Your task to perform on an android device: When is my next meeting? Image 0: 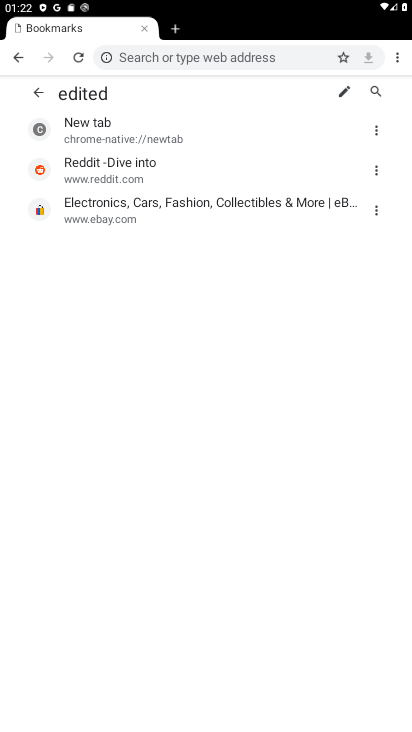
Step 0: press home button
Your task to perform on an android device: When is my next meeting? Image 1: 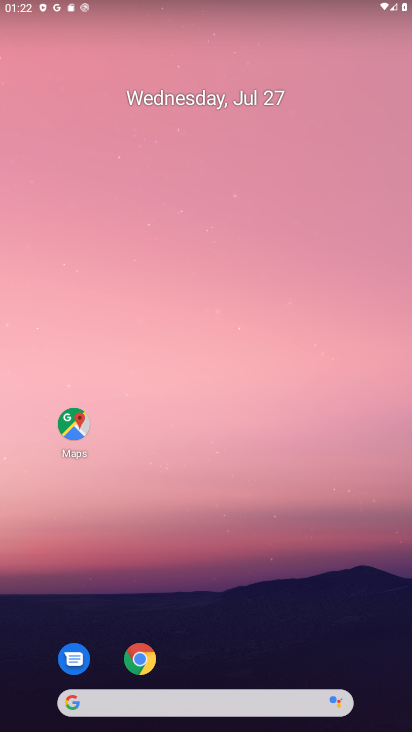
Step 1: drag from (276, 601) to (167, 62)
Your task to perform on an android device: When is my next meeting? Image 2: 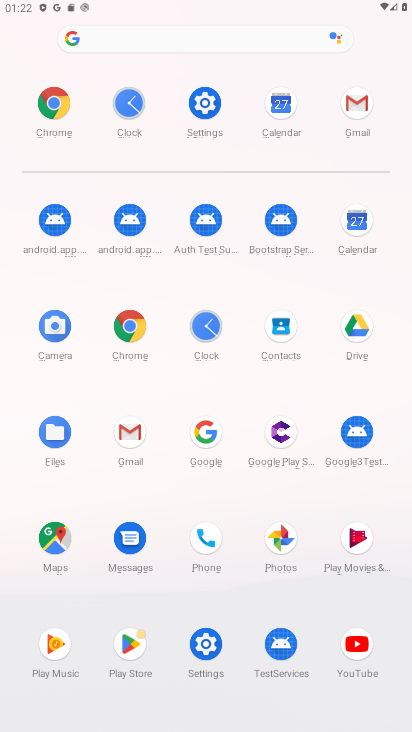
Step 2: click (362, 226)
Your task to perform on an android device: When is my next meeting? Image 3: 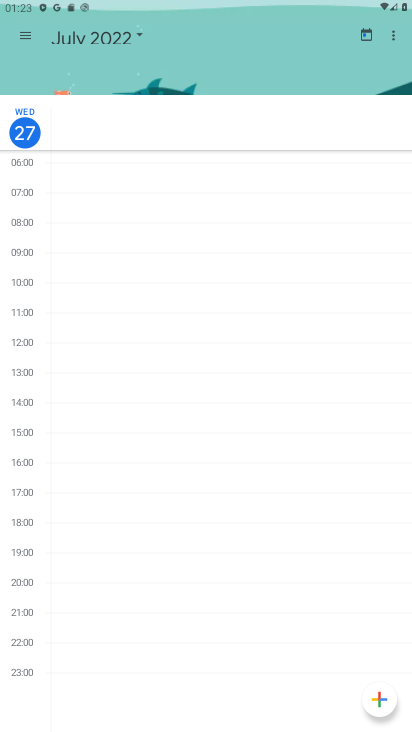
Step 3: click (22, 38)
Your task to perform on an android device: When is my next meeting? Image 4: 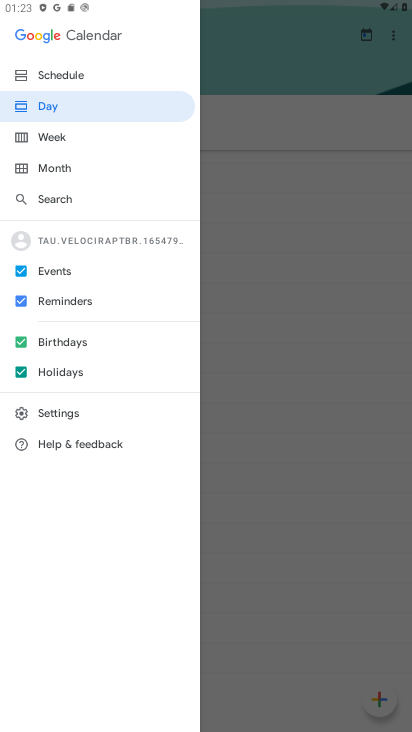
Step 4: click (59, 75)
Your task to perform on an android device: When is my next meeting? Image 5: 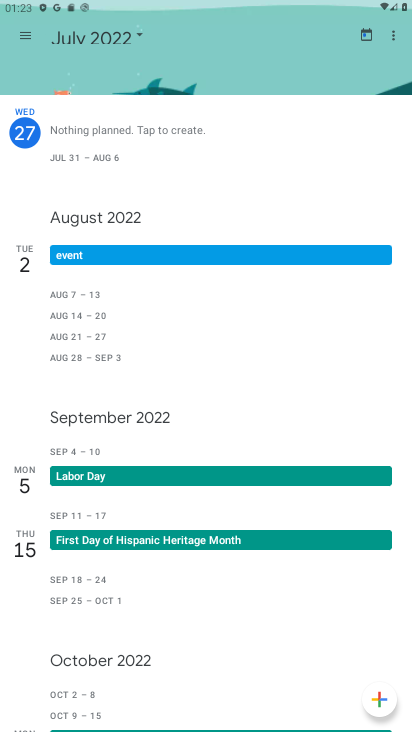
Step 5: drag from (250, 541) to (219, 512)
Your task to perform on an android device: When is my next meeting? Image 6: 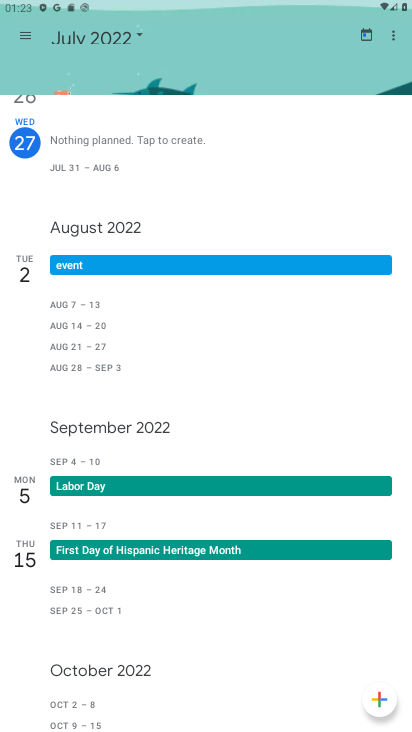
Step 6: click (70, 265)
Your task to perform on an android device: When is my next meeting? Image 7: 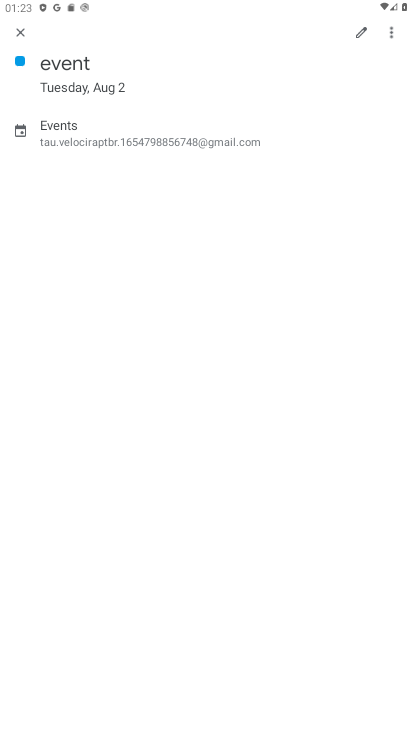
Step 7: task complete